Your task to perform on an android device: View the shopping cart on target. Image 0: 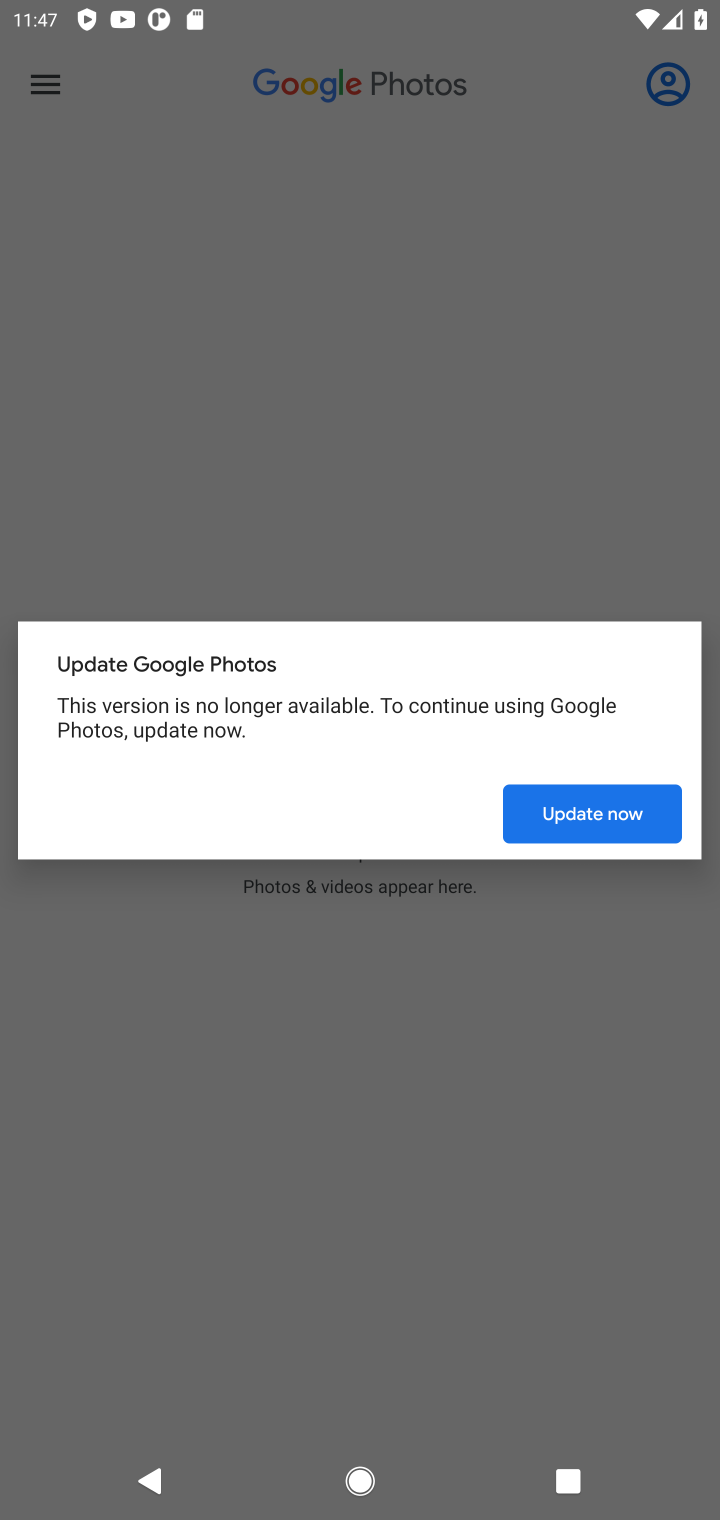
Step 0: press home button
Your task to perform on an android device: View the shopping cart on target. Image 1: 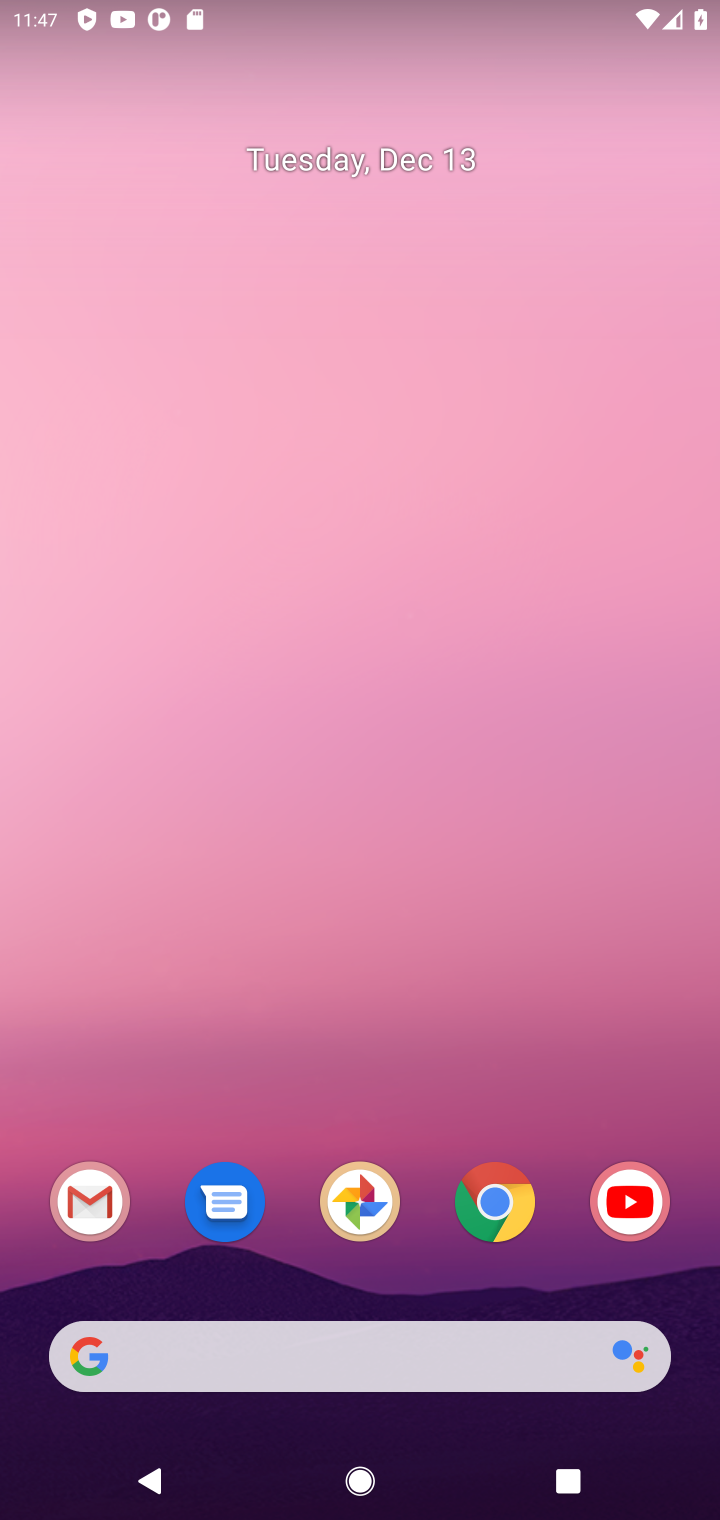
Step 1: click (483, 1183)
Your task to perform on an android device: View the shopping cart on target. Image 2: 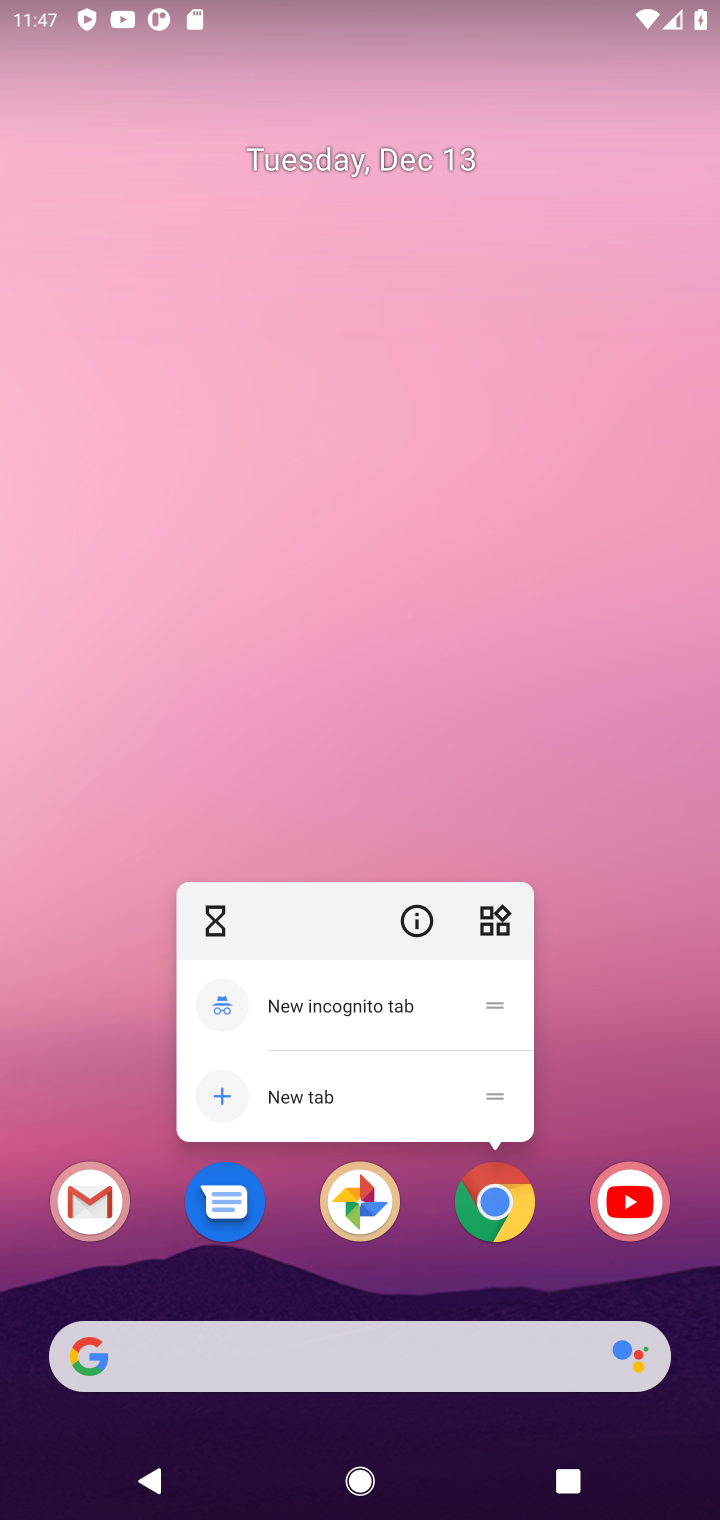
Step 2: click (485, 1205)
Your task to perform on an android device: View the shopping cart on target. Image 3: 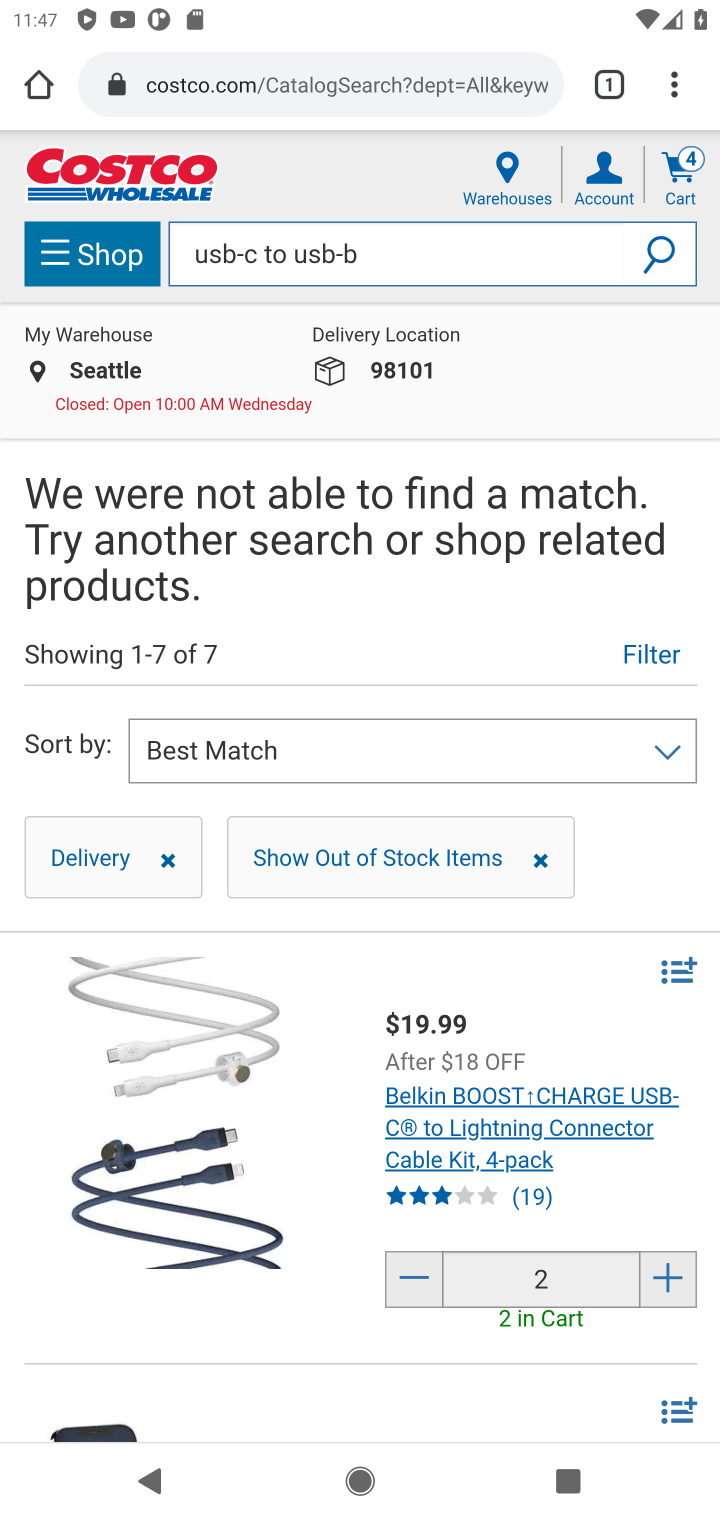
Step 3: click (322, 83)
Your task to perform on an android device: View the shopping cart on target. Image 4: 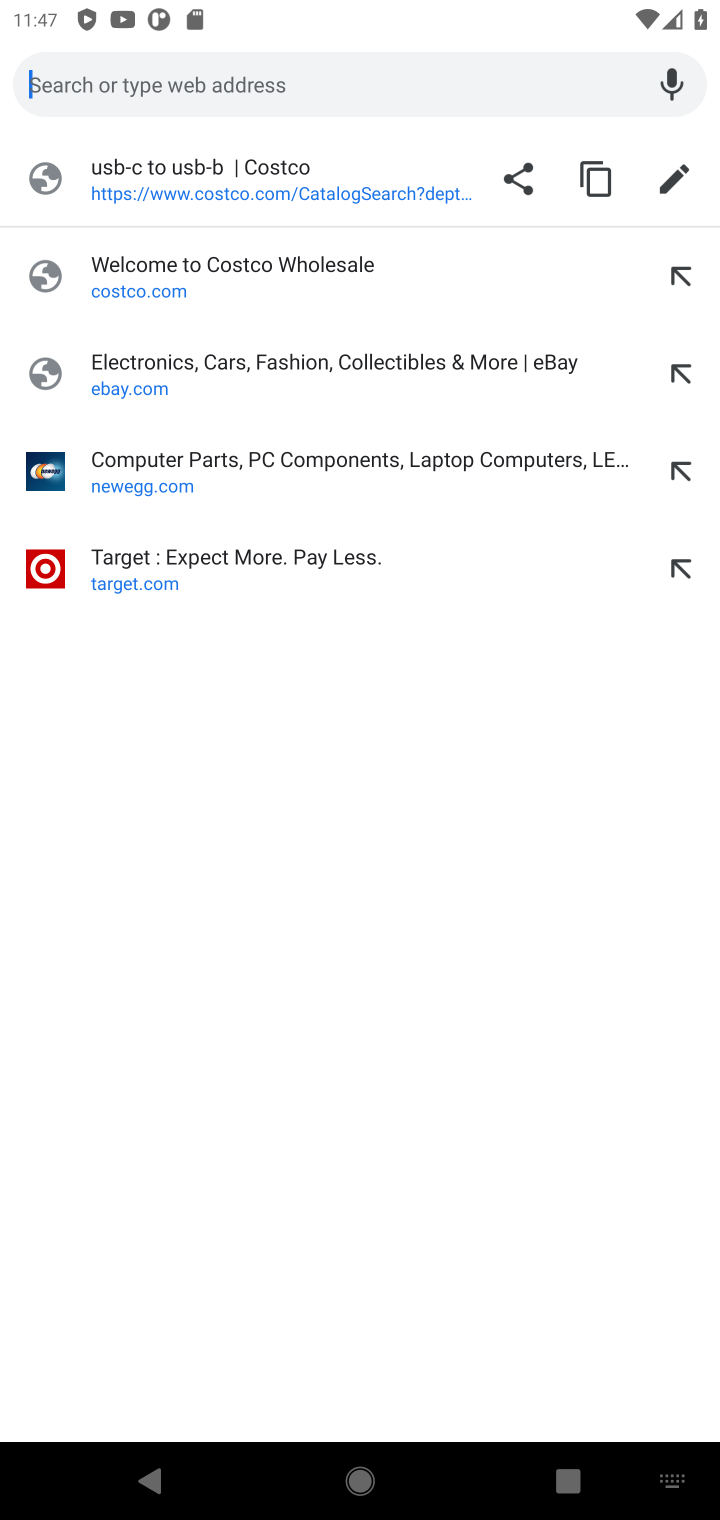
Step 4: click (237, 568)
Your task to perform on an android device: View the shopping cart on target. Image 5: 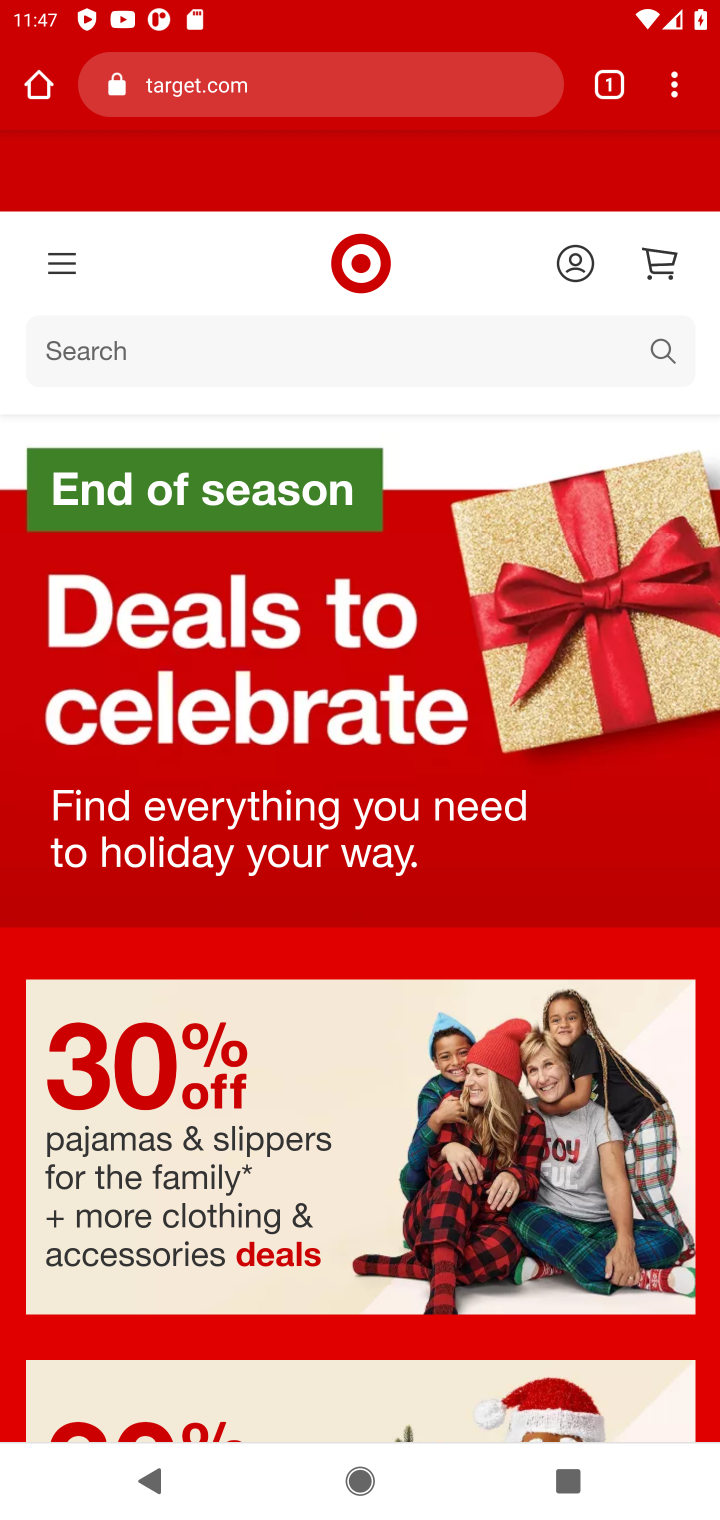
Step 5: click (473, 343)
Your task to perform on an android device: View the shopping cart on target. Image 6: 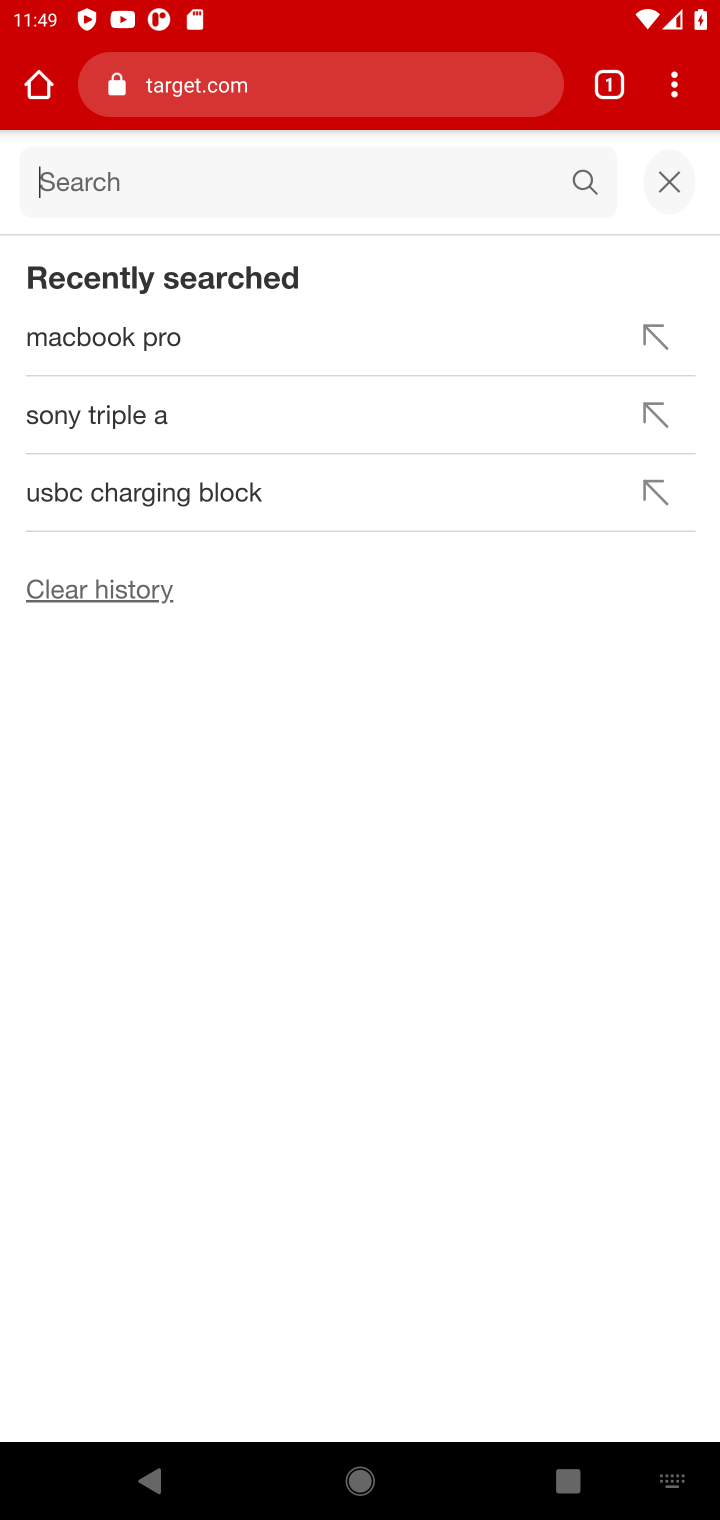
Step 6: task complete